Your task to perform on an android device: Open Chrome and go to the settings page Image 0: 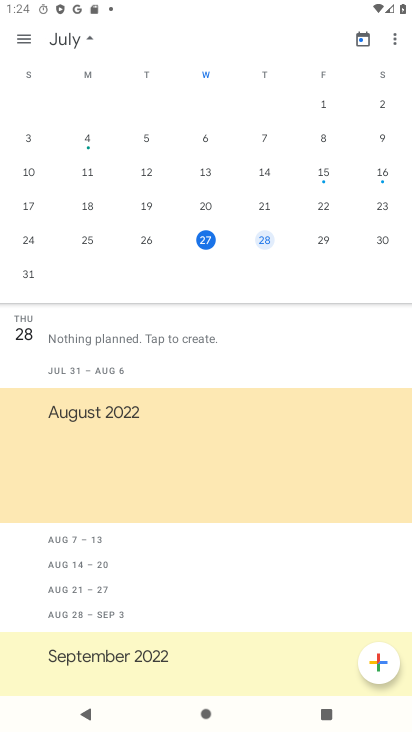
Step 0: press home button
Your task to perform on an android device: Open Chrome and go to the settings page Image 1: 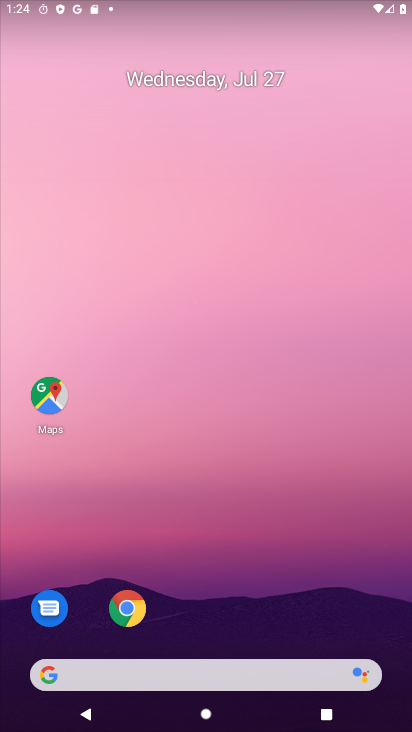
Step 1: click (123, 616)
Your task to perform on an android device: Open Chrome and go to the settings page Image 2: 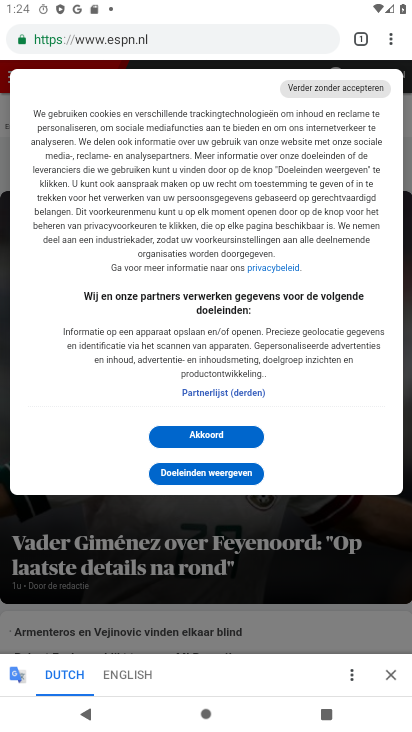
Step 2: click (394, 39)
Your task to perform on an android device: Open Chrome and go to the settings page Image 3: 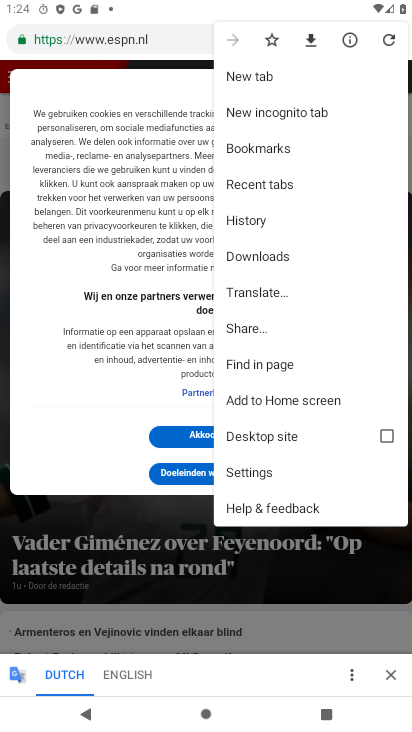
Step 3: click (253, 474)
Your task to perform on an android device: Open Chrome and go to the settings page Image 4: 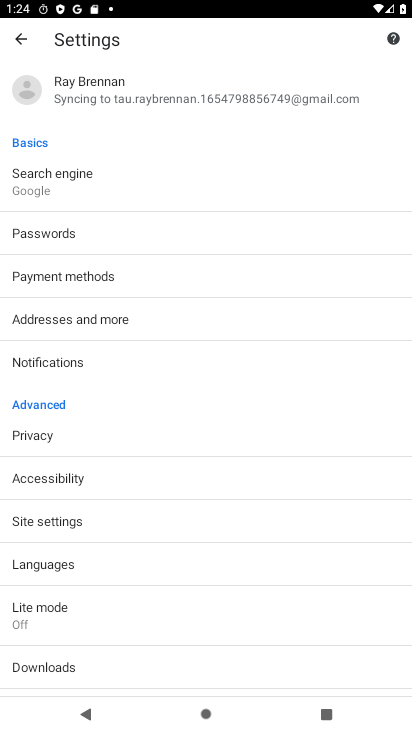
Step 4: task complete